Your task to perform on an android device: Go to location settings Image 0: 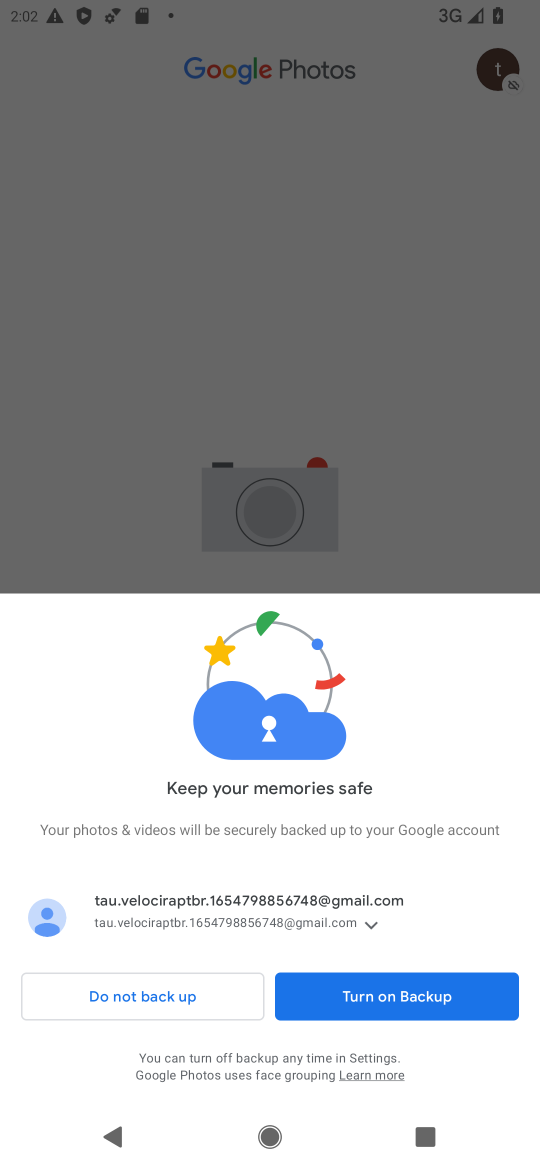
Step 0: press home button
Your task to perform on an android device: Go to location settings Image 1: 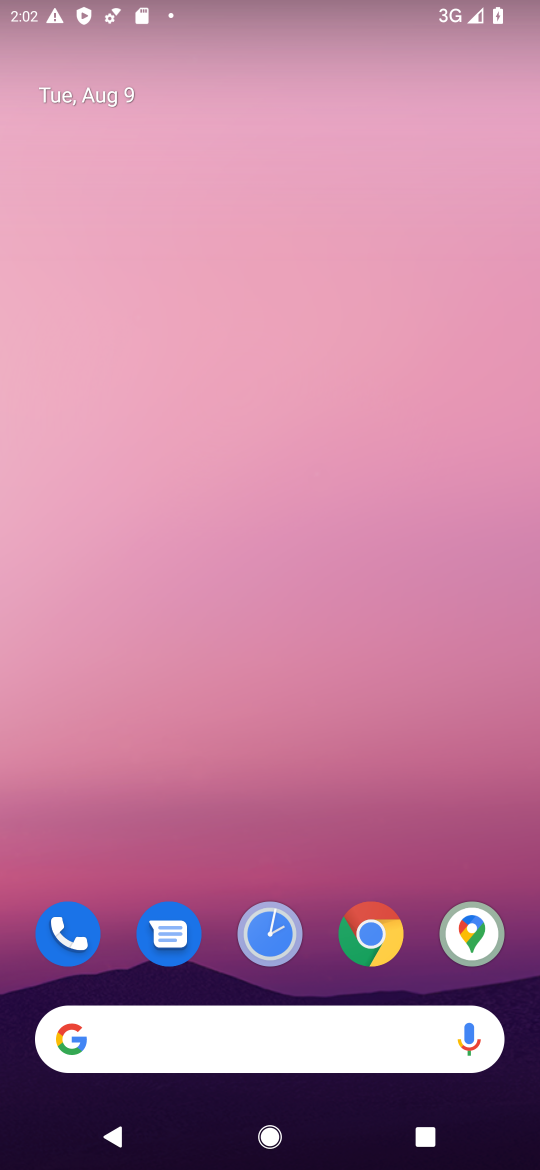
Step 1: drag from (312, 991) to (412, 135)
Your task to perform on an android device: Go to location settings Image 2: 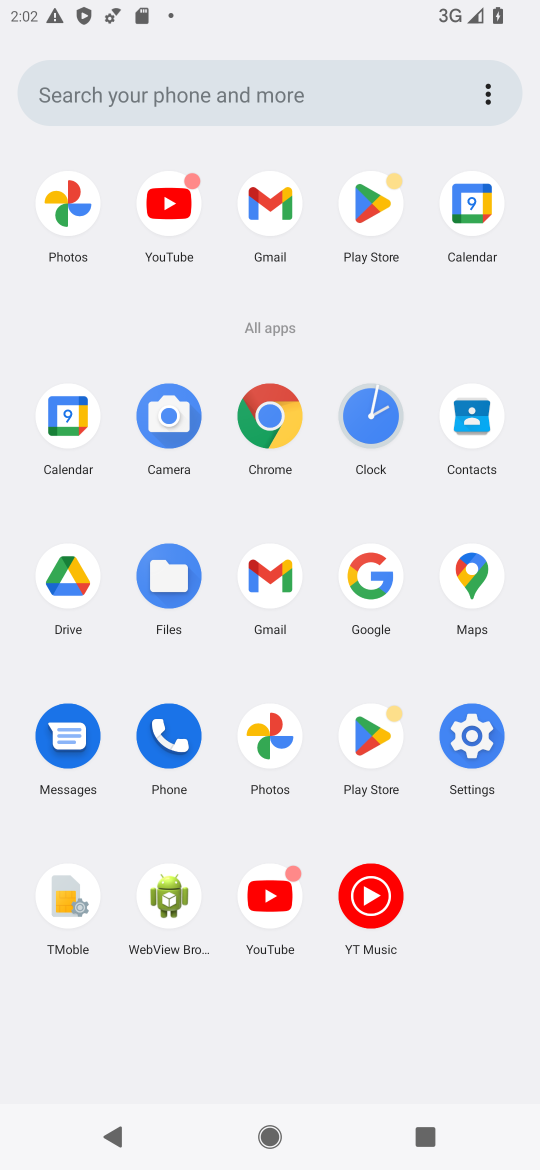
Step 2: click (448, 761)
Your task to perform on an android device: Go to location settings Image 3: 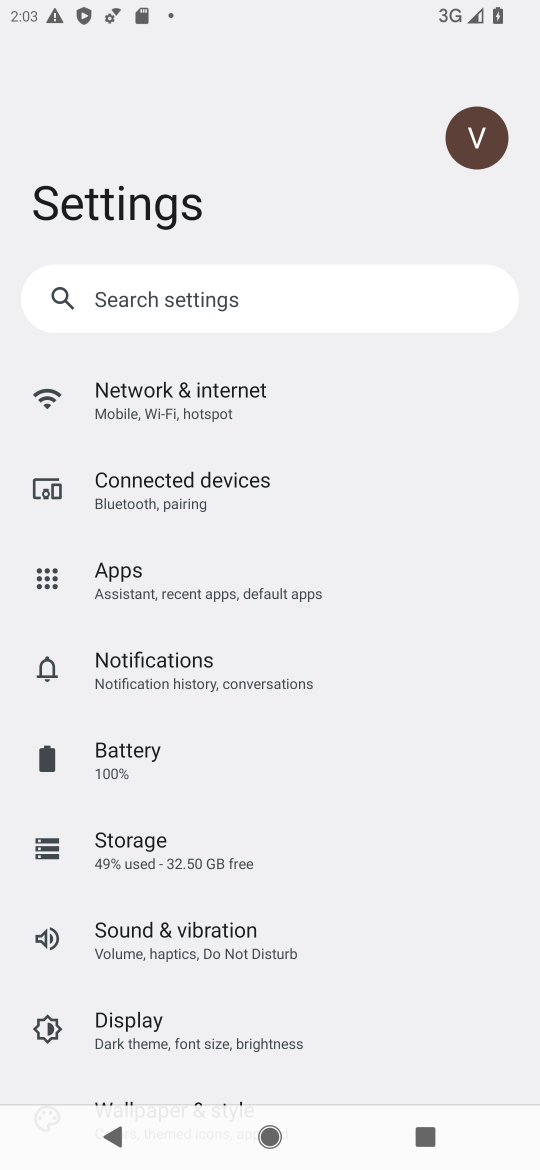
Step 3: drag from (313, 1000) to (333, 446)
Your task to perform on an android device: Go to location settings Image 4: 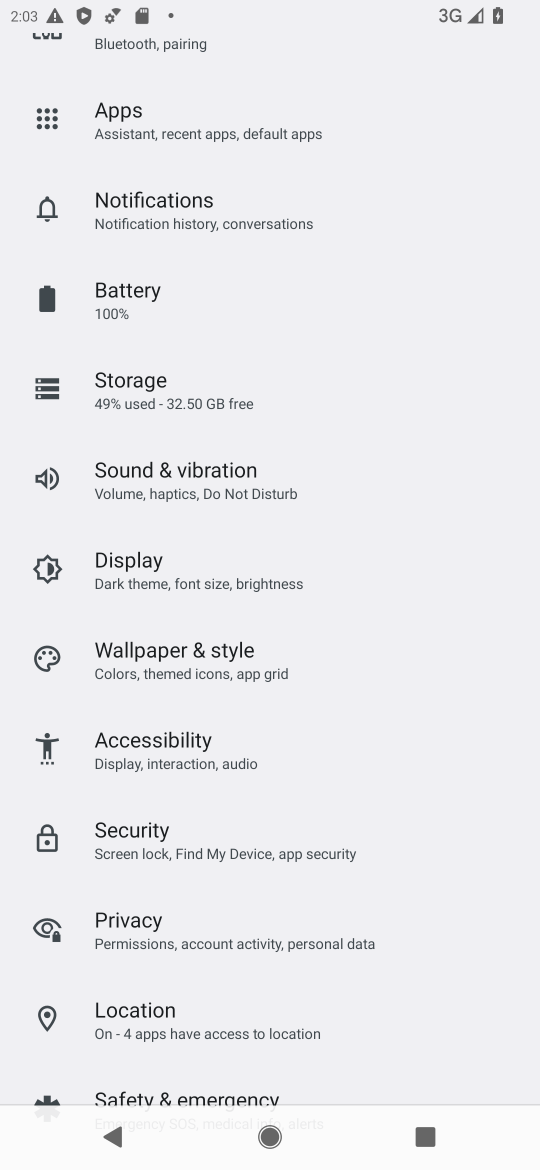
Step 4: click (308, 1051)
Your task to perform on an android device: Go to location settings Image 5: 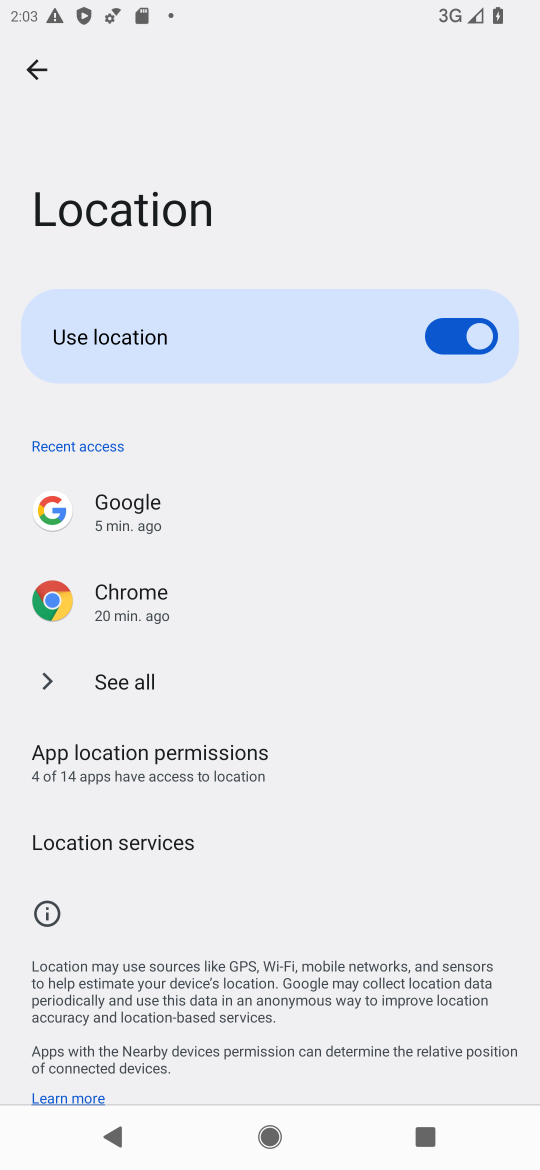
Step 5: task complete